Your task to perform on an android device: make emails show in primary in the gmail app Image 0: 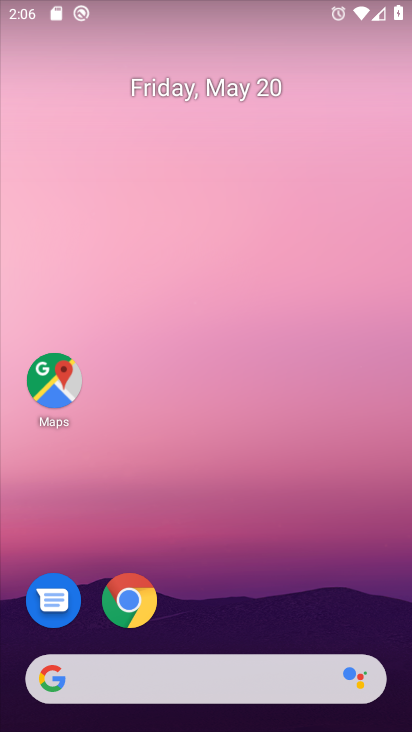
Step 0: drag from (217, 584) to (329, 55)
Your task to perform on an android device: make emails show in primary in the gmail app Image 1: 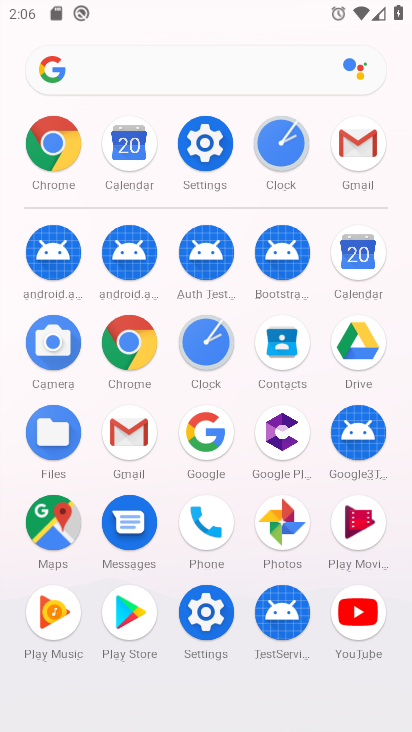
Step 1: click (149, 427)
Your task to perform on an android device: make emails show in primary in the gmail app Image 2: 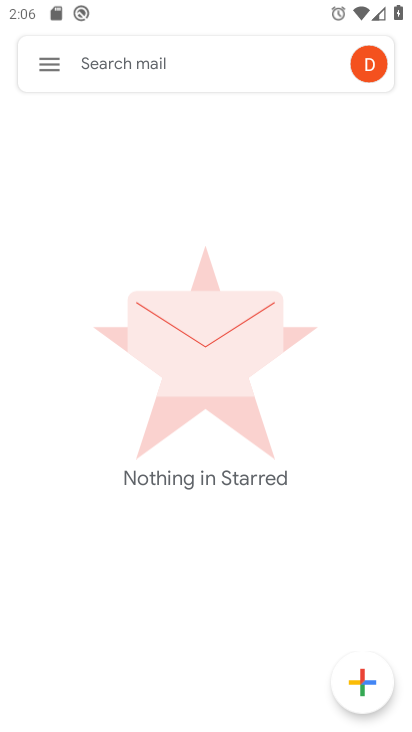
Step 2: click (45, 62)
Your task to perform on an android device: make emails show in primary in the gmail app Image 3: 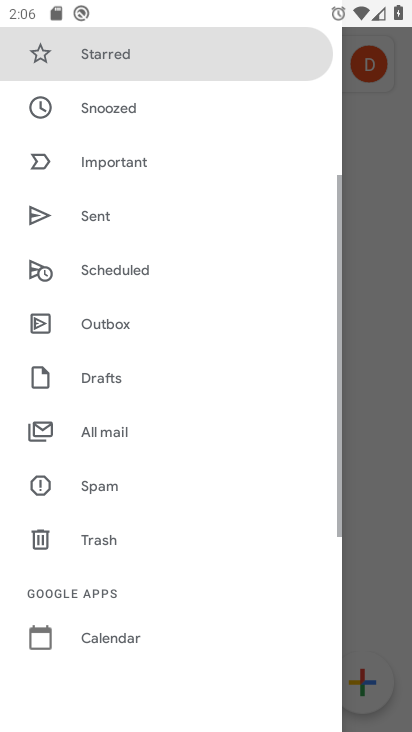
Step 3: drag from (108, 615) to (119, 323)
Your task to perform on an android device: make emails show in primary in the gmail app Image 4: 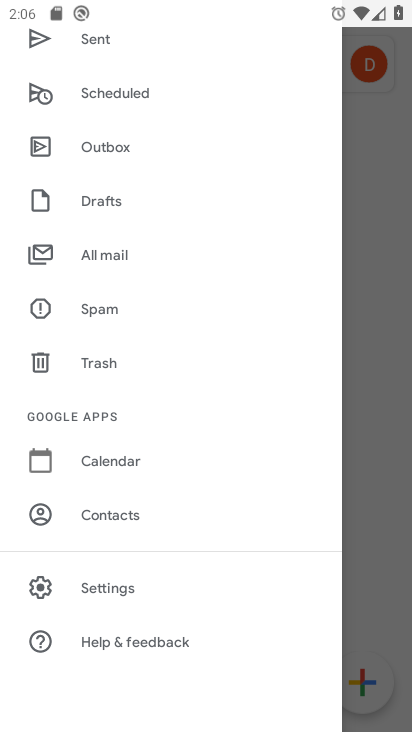
Step 4: click (116, 594)
Your task to perform on an android device: make emails show in primary in the gmail app Image 5: 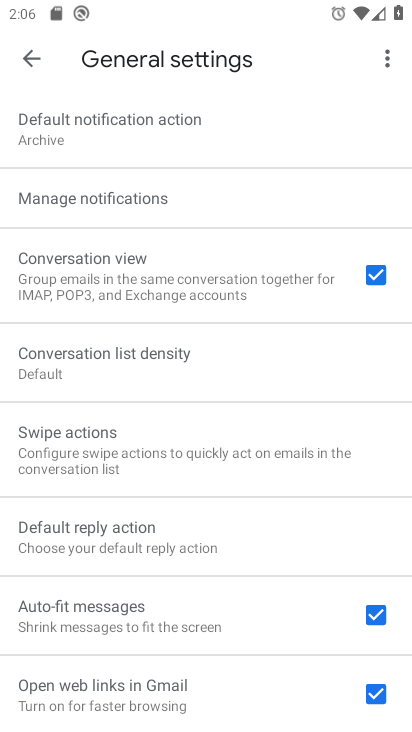
Step 5: click (34, 55)
Your task to perform on an android device: make emails show in primary in the gmail app Image 6: 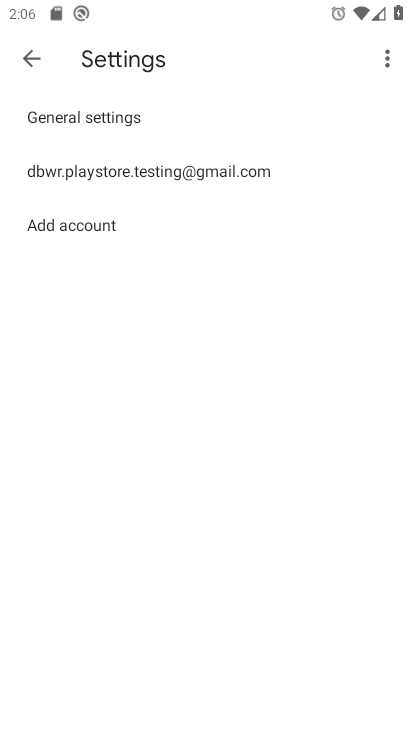
Step 6: click (167, 175)
Your task to perform on an android device: make emails show in primary in the gmail app Image 7: 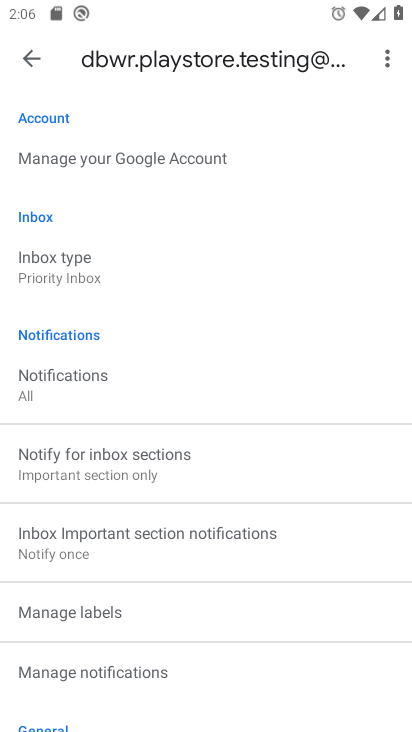
Step 7: click (83, 277)
Your task to perform on an android device: make emails show in primary in the gmail app Image 8: 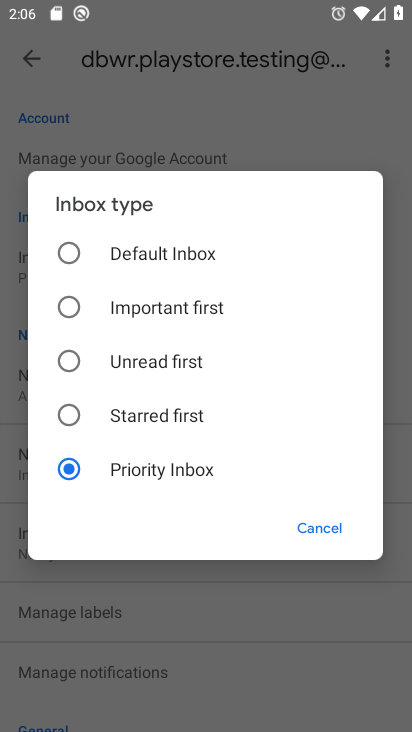
Step 8: click (117, 251)
Your task to perform on an android device: make emails show in primary in the gmail app Image 9: 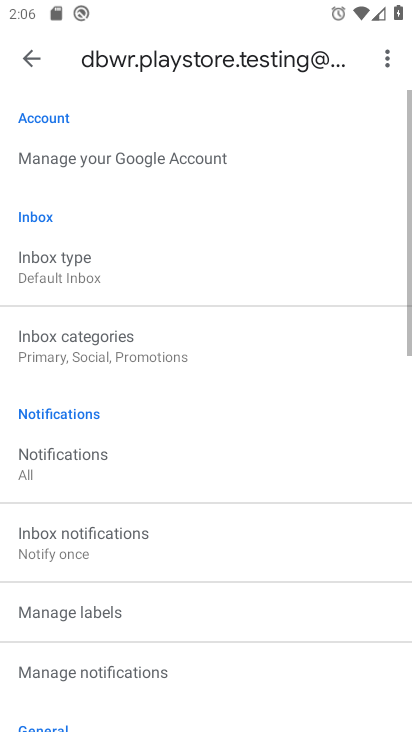
Step 9: click (105, 350)
Your task to perform on an android device: make emails show in primary in the gmail app Image 10: 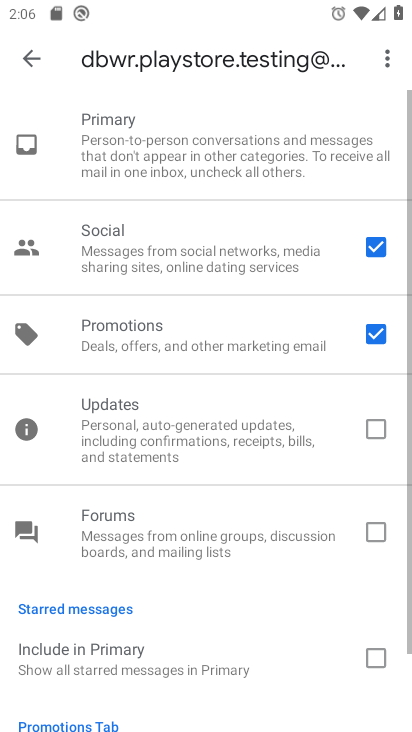
Step 10: click (380, 243)
Your task to perform on an android device: make emails show in primary in the gmail app Image 11: 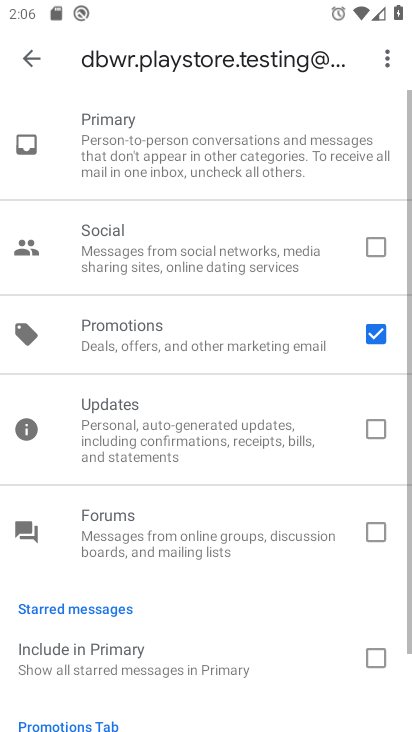
Step 11: click (381, 333)
Your task to perform on an android device: make emails show in primary in the gmail app Image 12: 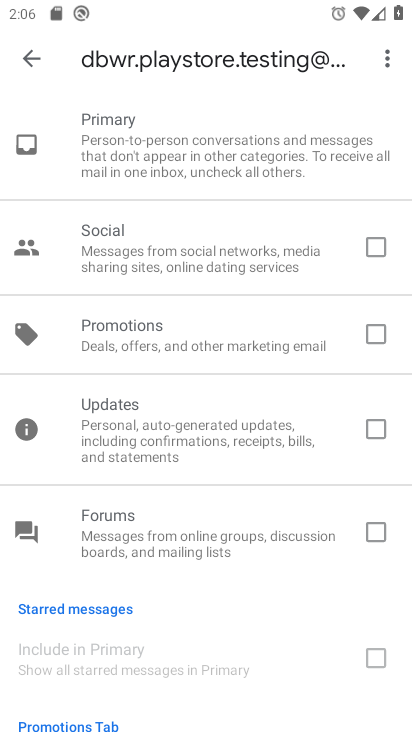
Step 12: task complete